Your task to perform on an android device: Turn off the flashlight Image 0: 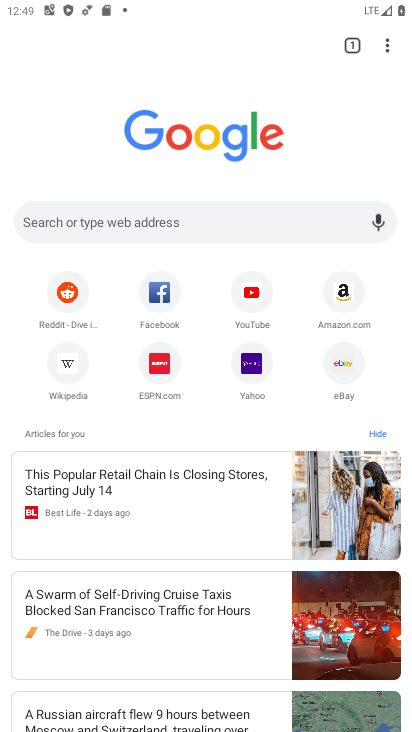
Step 0: press home button
Your task to perform on an android device: Turn off the flashlight Image 1: 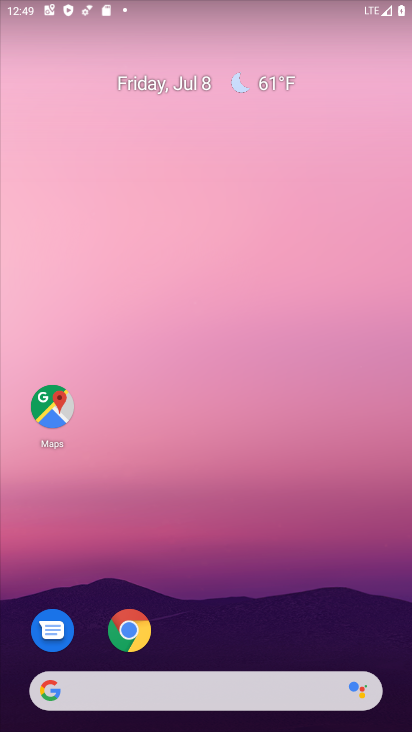
Step 1: drag from (389, 655) to (248, 0)
Your task to perform on an android device: Turn off the flashlight Image 2: 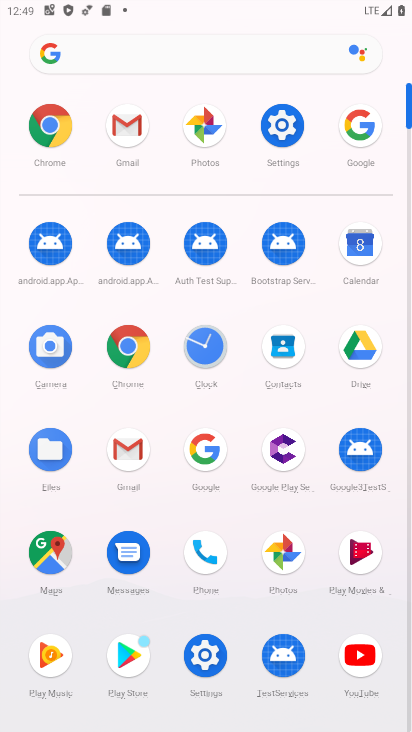
Step 2: click (279, 146)
Your task to perform on an android device: Turn off the flashlight Image 3: 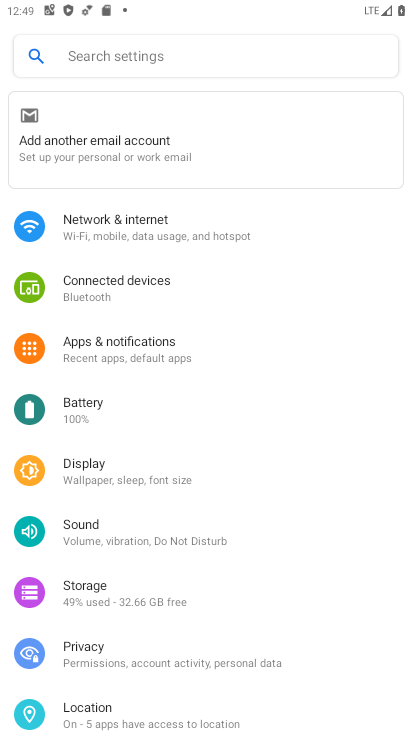
Step 3: task complete